Your task to perform on an android device: Search for a 1/2 in. x 1/2 in. x 24 in. 600 grit sander on Lowes.com Image 0: 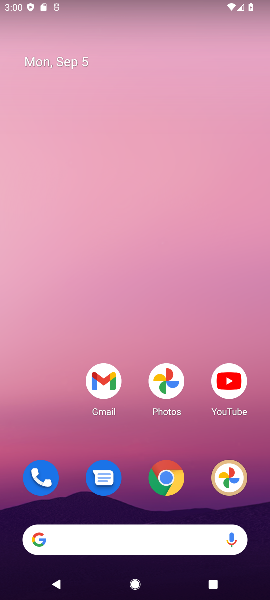
Step 0: drag from (174, 487) to (165, 148)
Your task to perform on an android device: Search for a 1/2 in. x 1/2 in. x 24 in. 600 grit sander on Lowes.com Image 1: 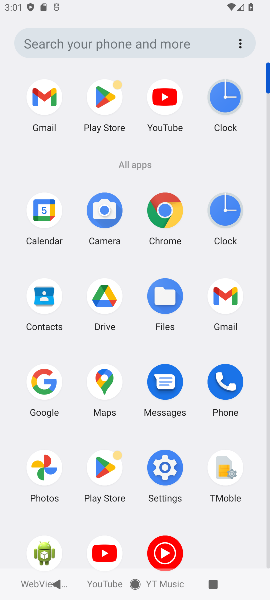
Step 1: click (162, 218)
Your task to perform on an android device: Search for a 1/2 in. x 1/2 in. x 24 in. 600 grit sander on Lowes.com Image 2: 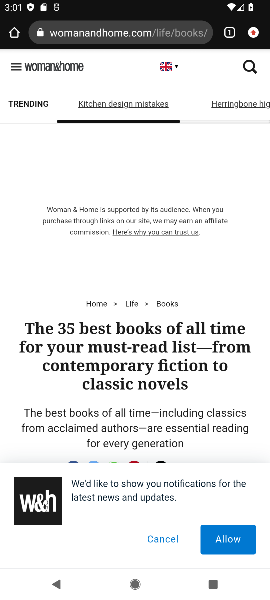
Step 2: click (141, 28)
Your task to perform on an android device: Search for a 1/2 in. x 1/2 in. x 24 in. 600 grit sander on Lowes.com Image 3: 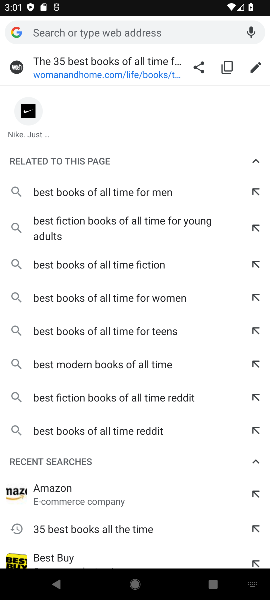
Step 3: type "Lowes.com"
Your task to perform on an android device: Search for a 1/2 in. x 1/2 in. x 24 in. 600 grit sander on Lowes.com Image 4: 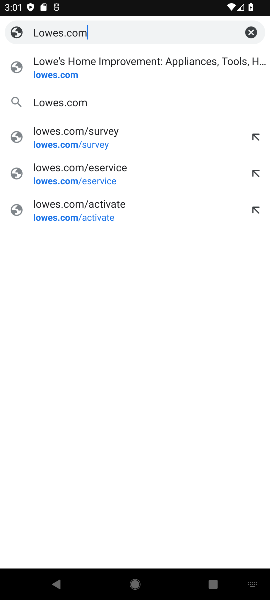
Step 4: click (117, 72)
Your task to perform on an android device: Search for a 1/2 in. x 1/2 in. x 24 in. 600 grit sander on Lowes.com Image 5: 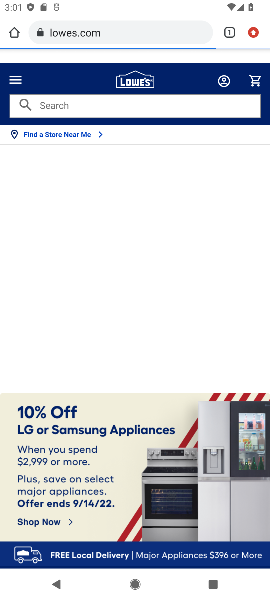
Step 5: click (142, 104)
Your task to perform on an android device: Search for a 1/2 in. x 1/2 in. x 24 in. 600 grit sander on Lowes.com Image 6: 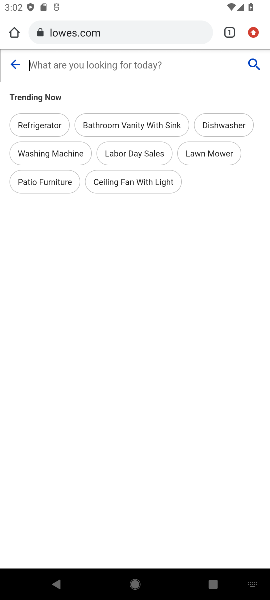
Step 6: type "1/2 in * 1/2 in.600 grit sander"
Your task to perform on an android device: Search for a 1/2 in. x 1/2 in. x 24 in. 600 grit sander on Lowes.com Image 7: 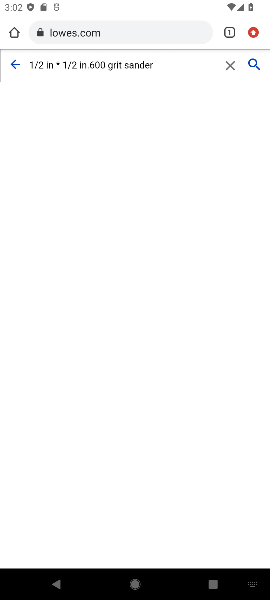
Step 7: click (254, 64)
Your task to perform on an android device: Search for a 1/2 in. x 1/2 in. x 24 in. 600 grit sander on Lowes.com Image 8: 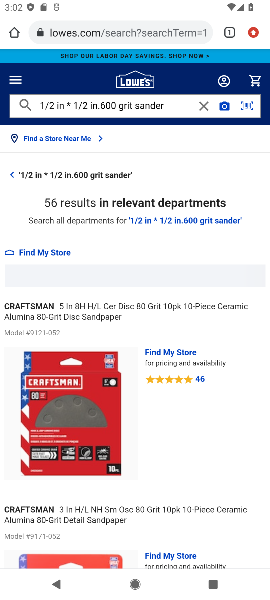
Step 8: task complete